Your task to perform on an android device: open app "Flipkart Online Shopping App" Image 0: 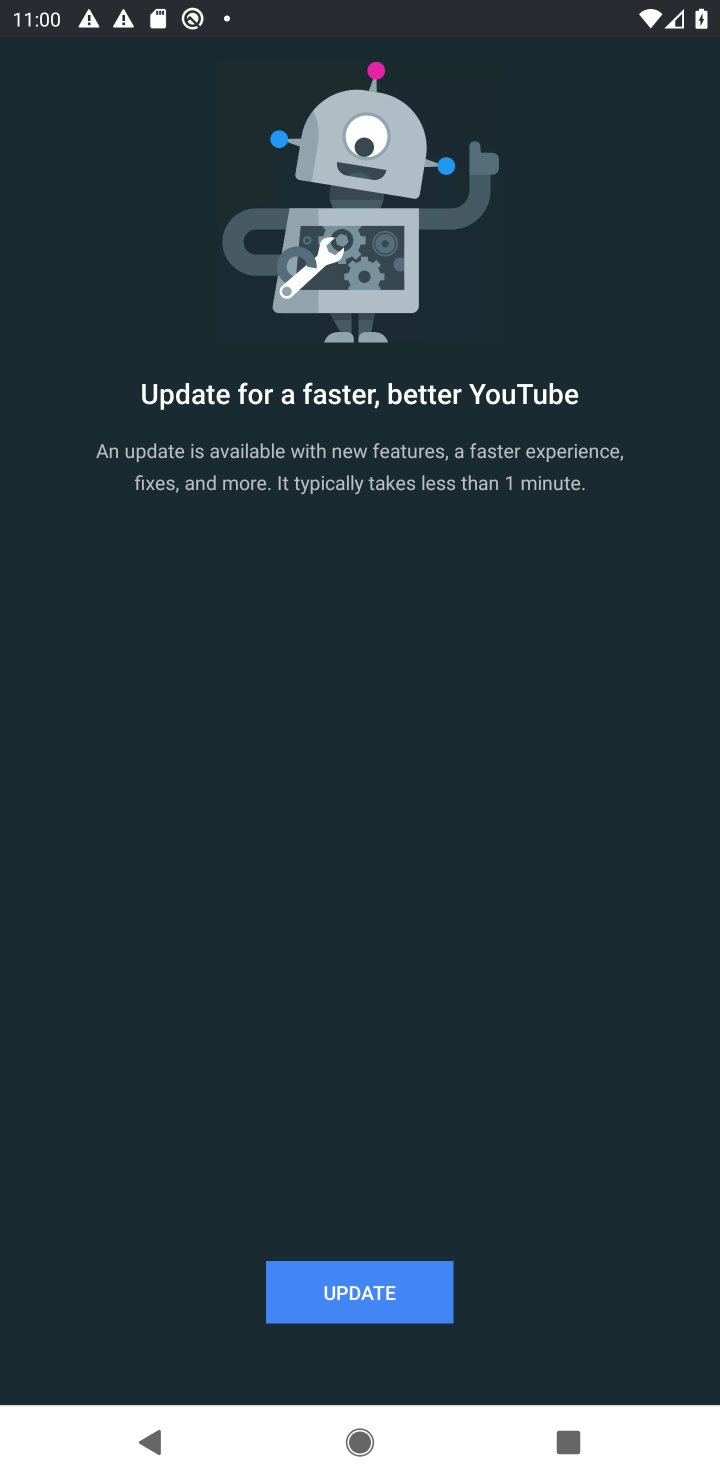
Step 0: press home button
Your task to perform on an android device: open app "Flipkart Online Shopping App" Image 1: 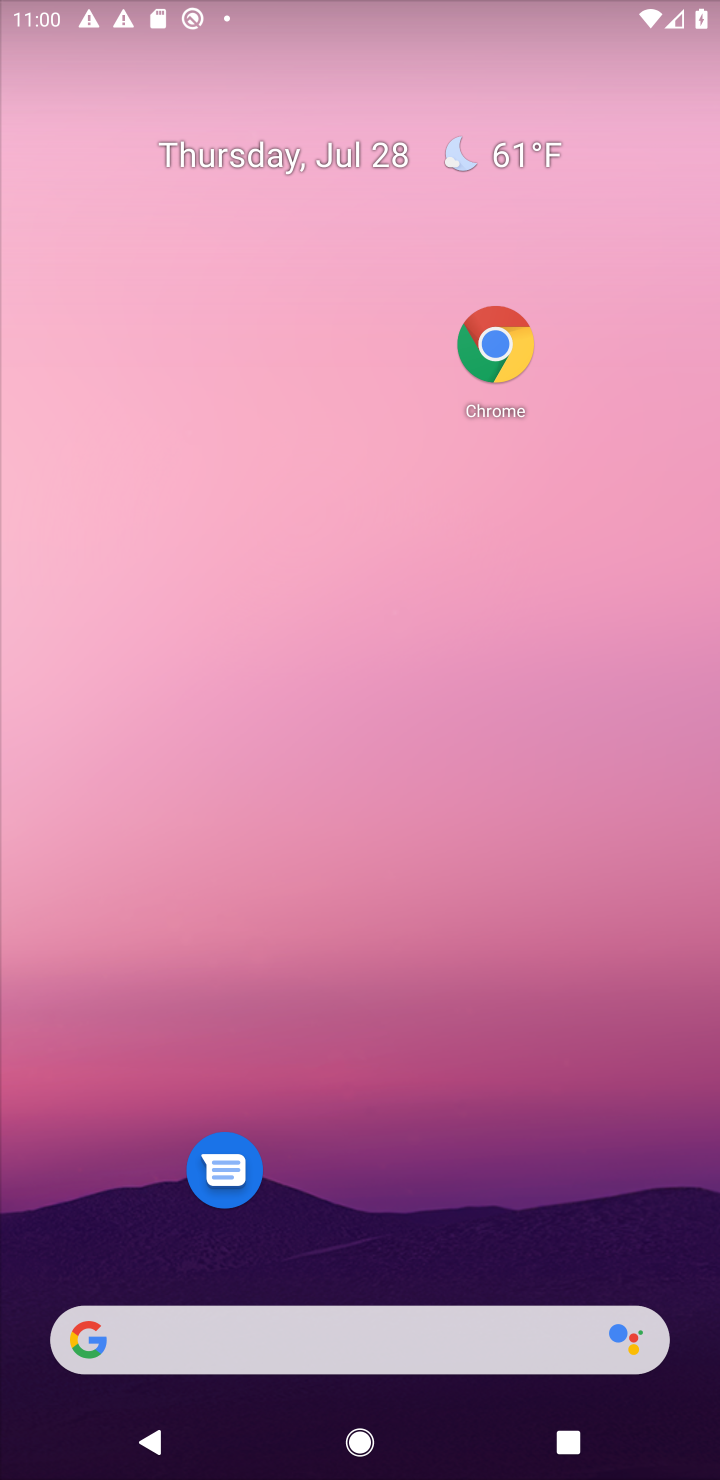
Step 1: drag from (462, 1009) to (621, 222)
Your task to perform on an android device: open app "Flipkart Online Shopping App" Image 2: 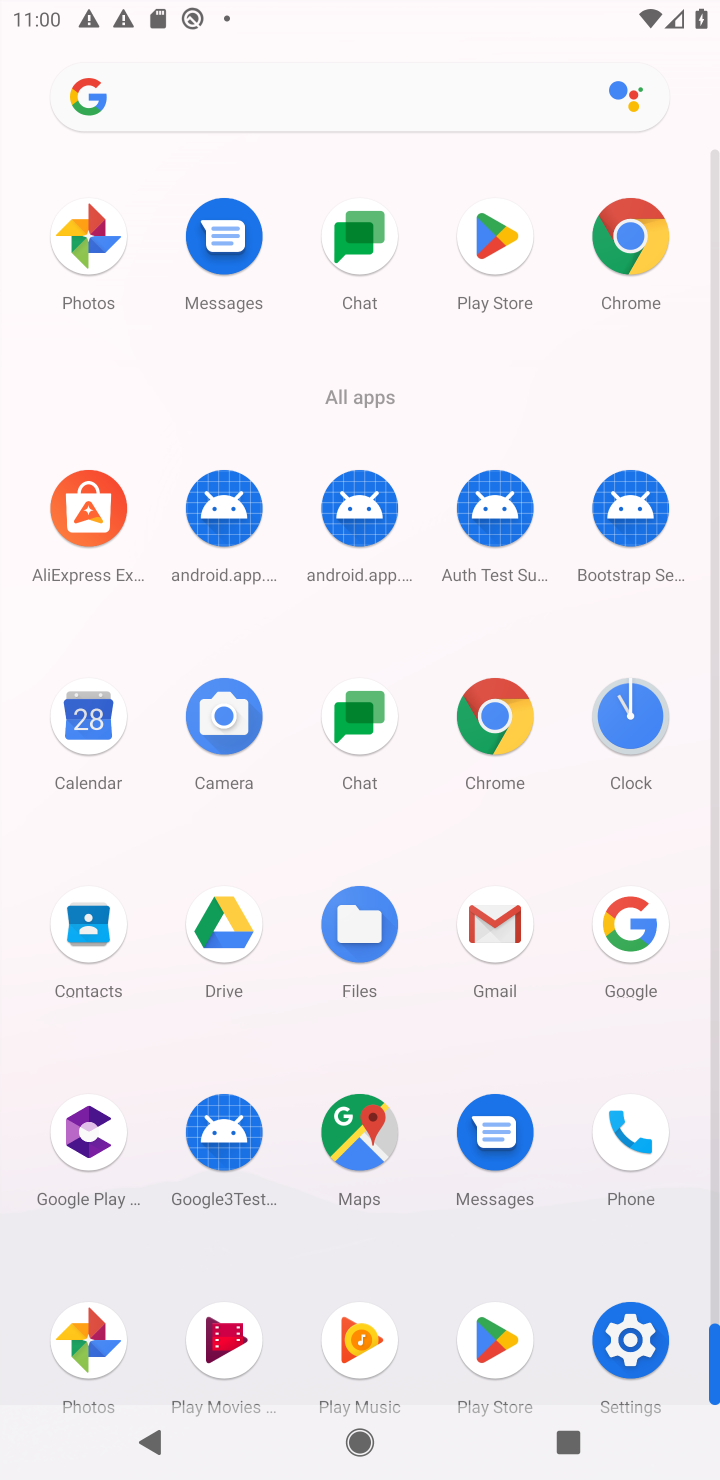
Step 2: click (506, 238)
Your task to perform on an android device: open app "Flipkart Online Shopping App" Image 3: 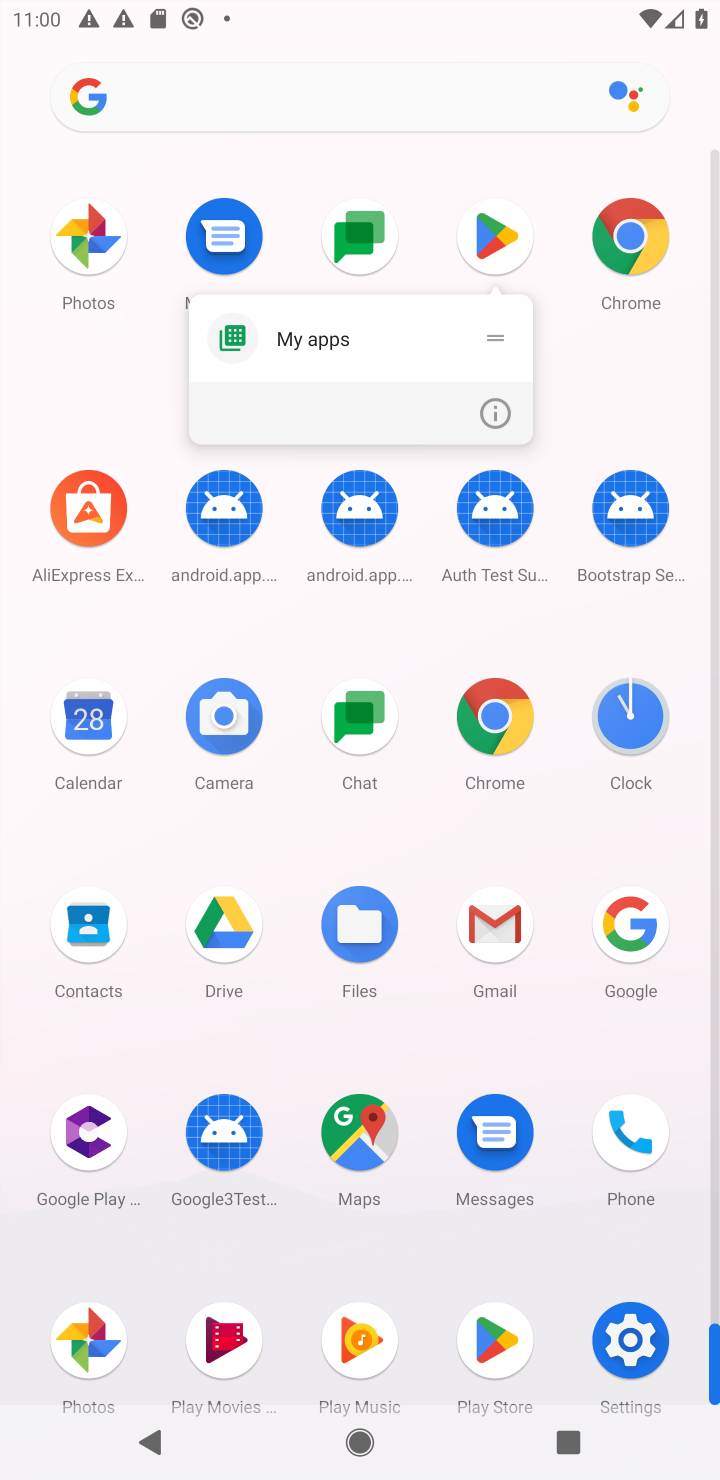
Step 3: click (506, 238)
Your task to perform on an android device: open app "Flipkart Online Shopping App" Image 4: 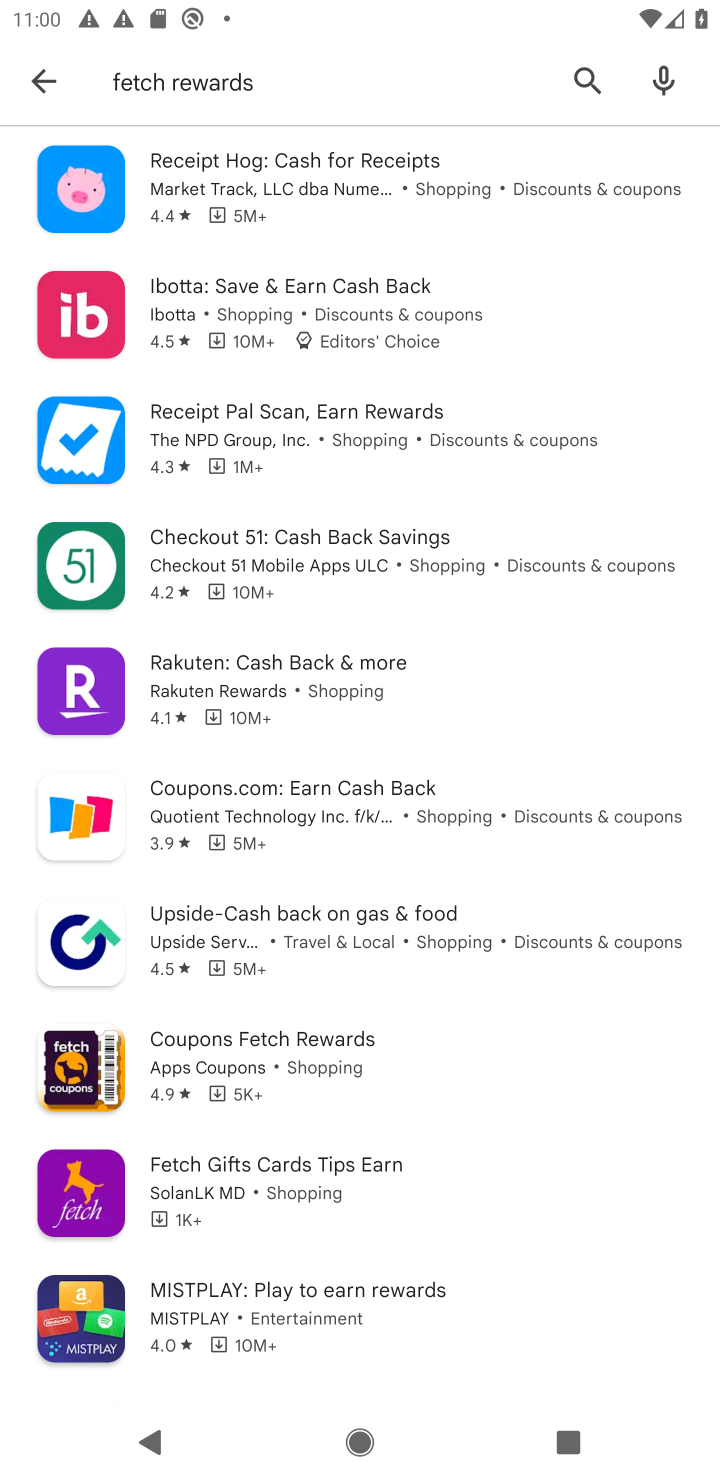
Step 4: click (577, 81)
Your task to perform on an android device: open app "Flipkart Online Shopping App" Image 5: 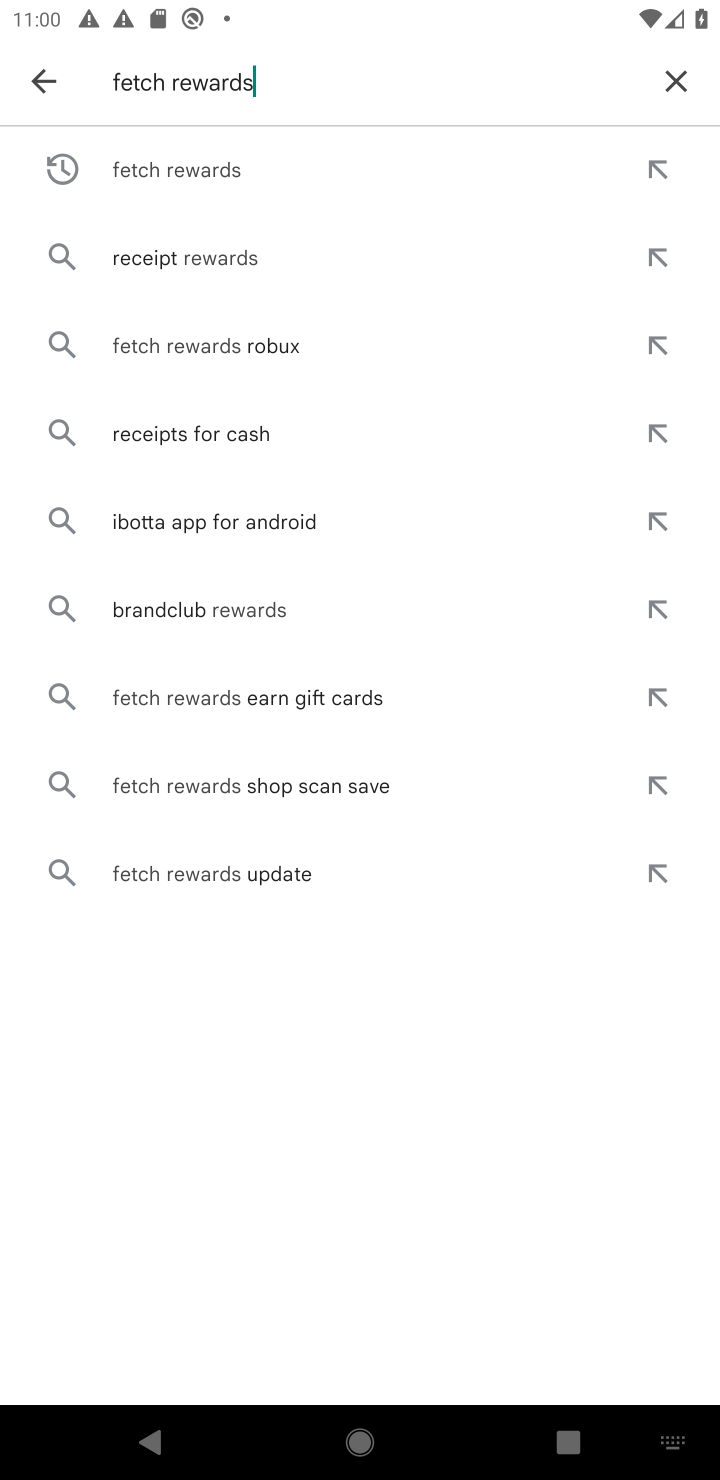
Step 5: click (681, 74)
Your task to perform on an android device: open app "Flipkart Online Shopping App" Image 6: 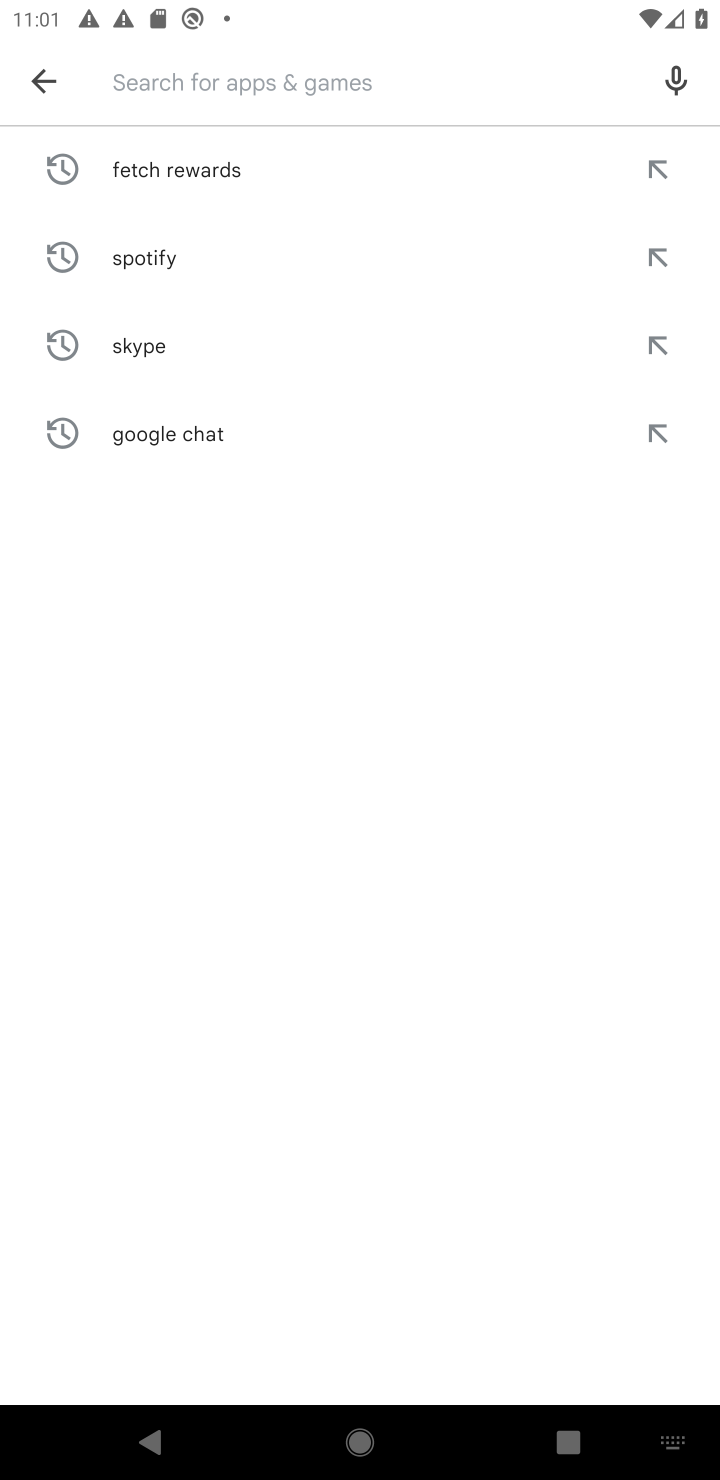
Step 6: type "flipkart online shopping app"
Your task to perform on an android device: open app "Flipkart Online Shopping App" Image 7: 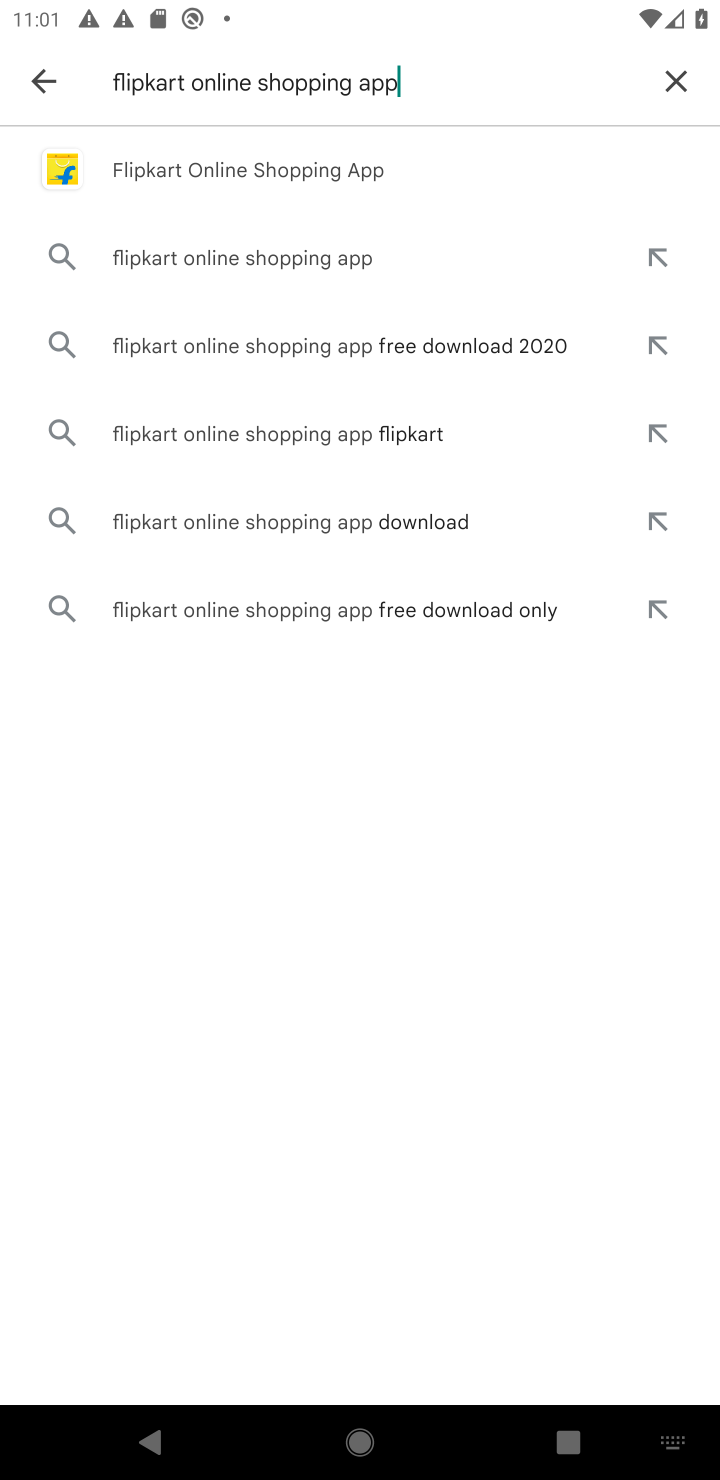
Step 7: click (347, 165)
Your task to perform on an android device: open app "Flipkart Online Shopping App" Image 8: 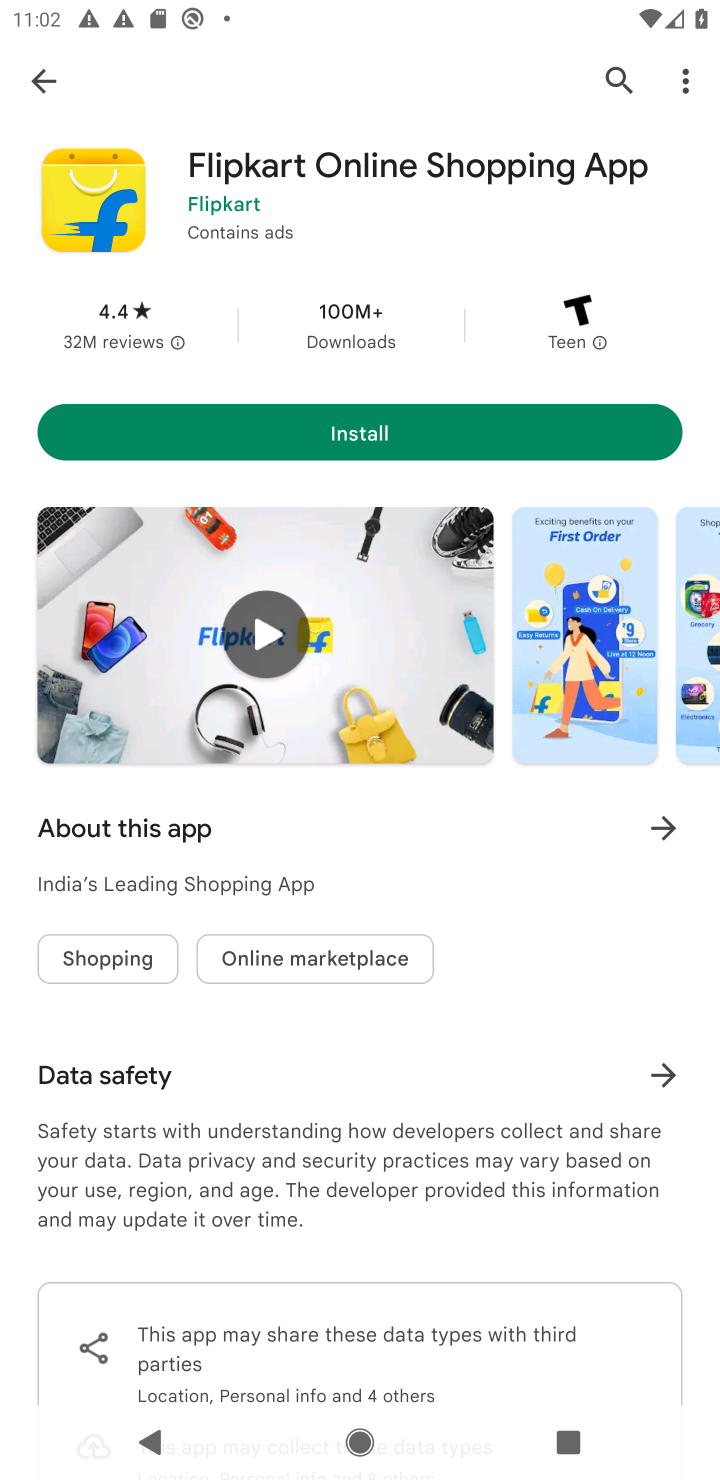
Step 8: task complete